Your task to perform on an android device: Open the Play Movies app and select the watchlist tab. Image 0: 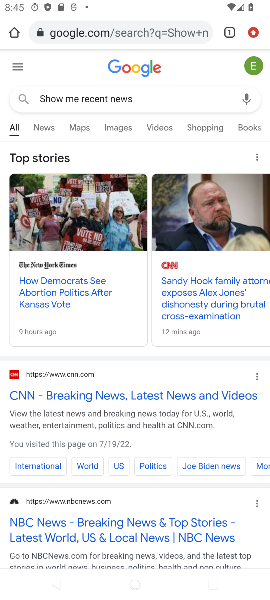
Step 0: press home button
Your task to perform on an android device: Open the Play Movies app and select the watchlist tab. Image 1: 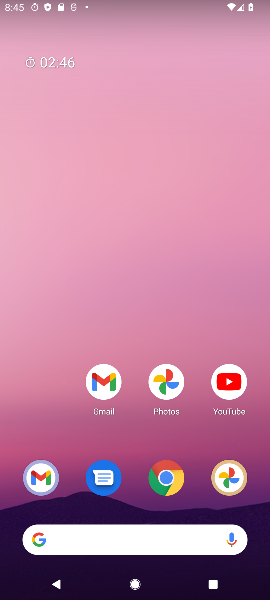
Step 1: task complete